Your task to perform on an android device: Search for good Thai restaurants Image 0: 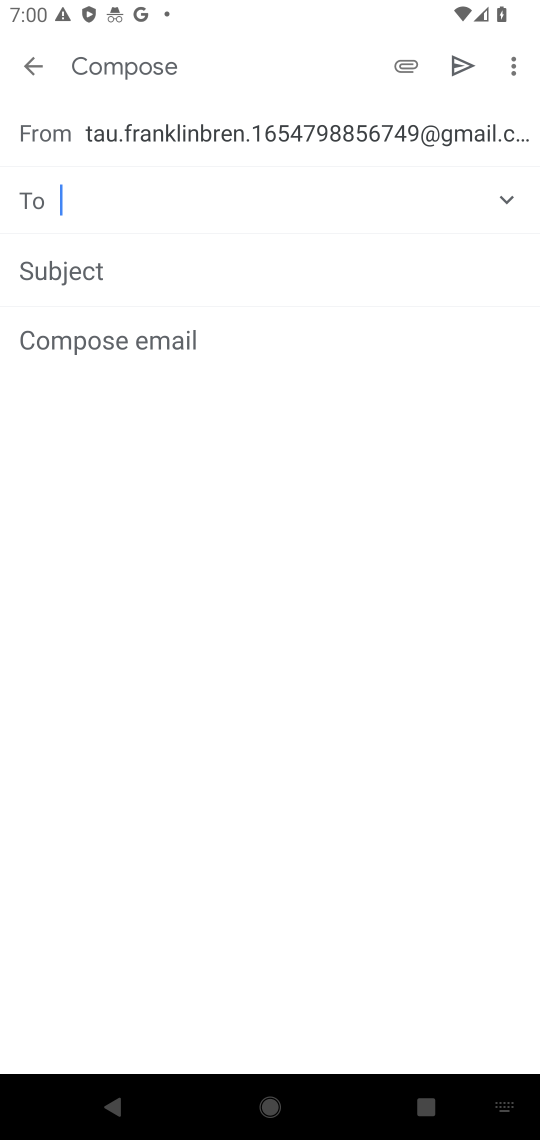
Step 0: press home button
Your task to perform on an android device: Search for good Thai restaurants Image 1: 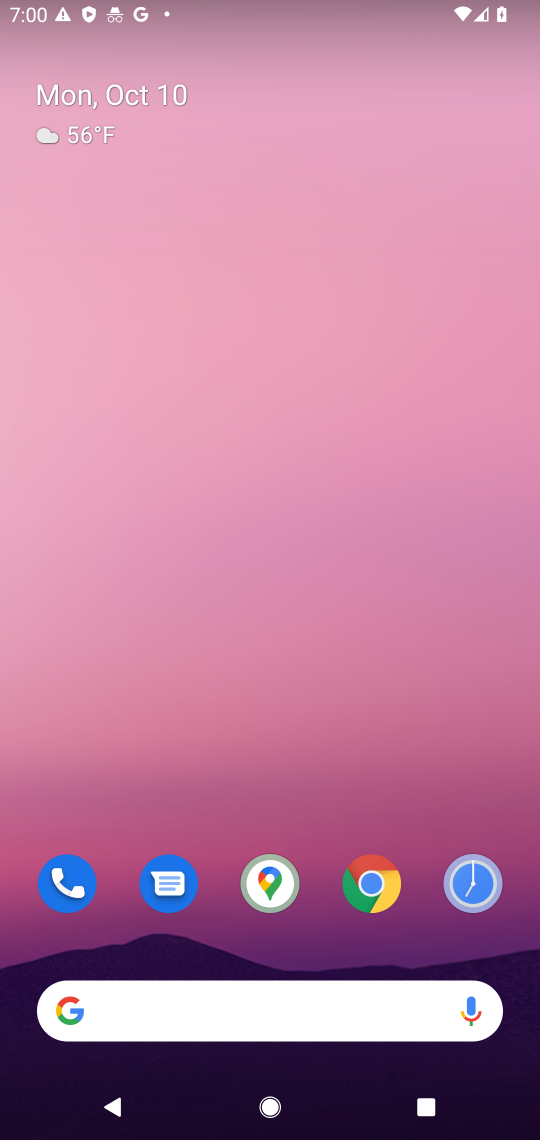
Step 1: drag from (289, 921) to (242, 561)
Your task to perform on an android device: Search for good Thai restaurants Image 2: 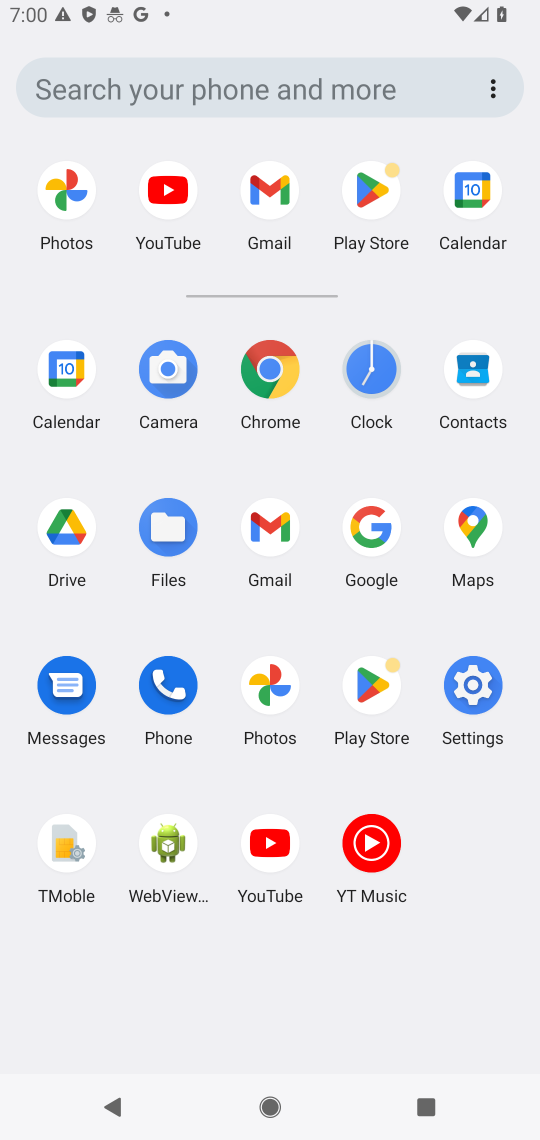
Step 2: click (400, 558)
Your task to perform on an android device: Search for good Thai restaurants Image 3: 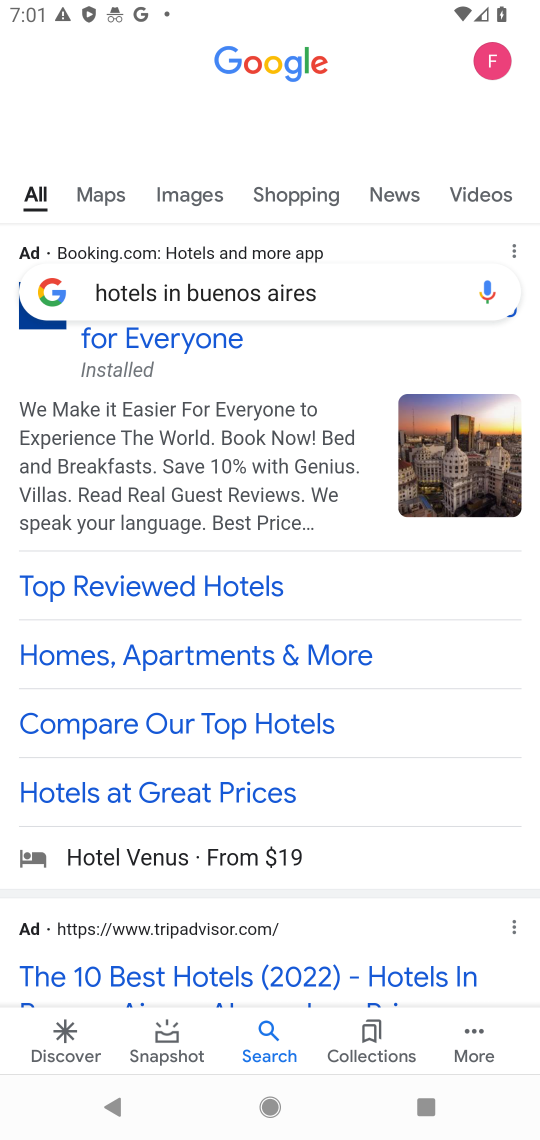
Step 3: click (385, 299)
Your task to perform on an android device: Search for good Thai restaurants Image 4: 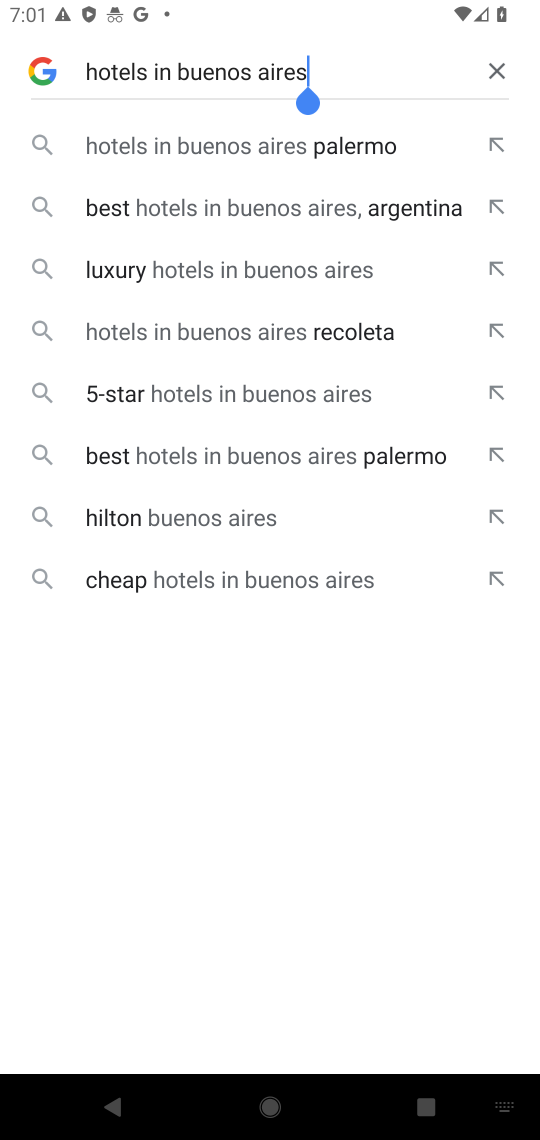
Step 4: click (503, 74)
Your task to perform on an android device: Search for good Thai restaurants Image 5: 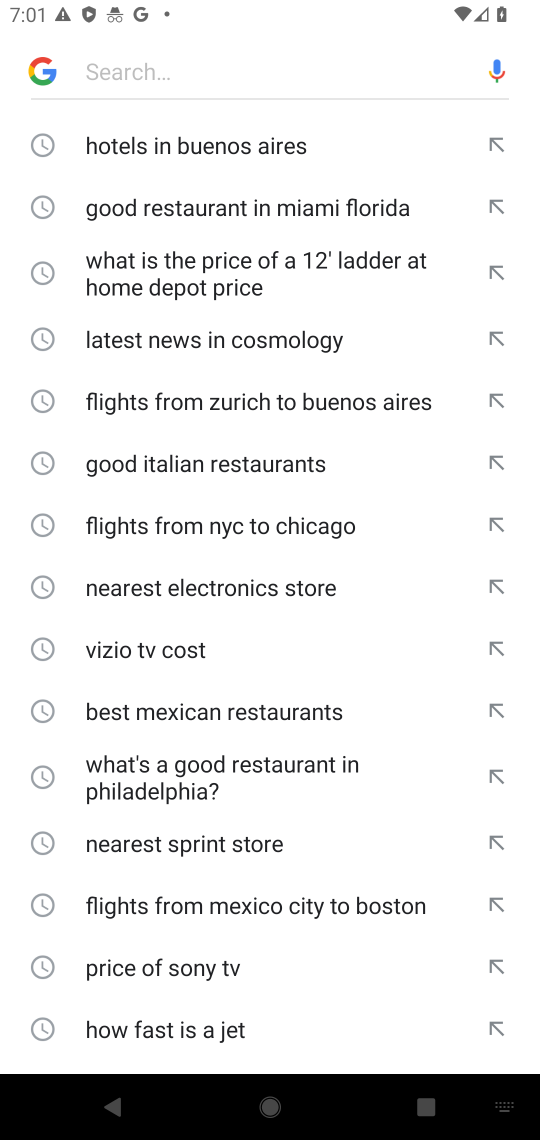
Step 5: type "good Thai restaurants"
Your task to perform on an android device: Search for good Thai restaurants Image 6: 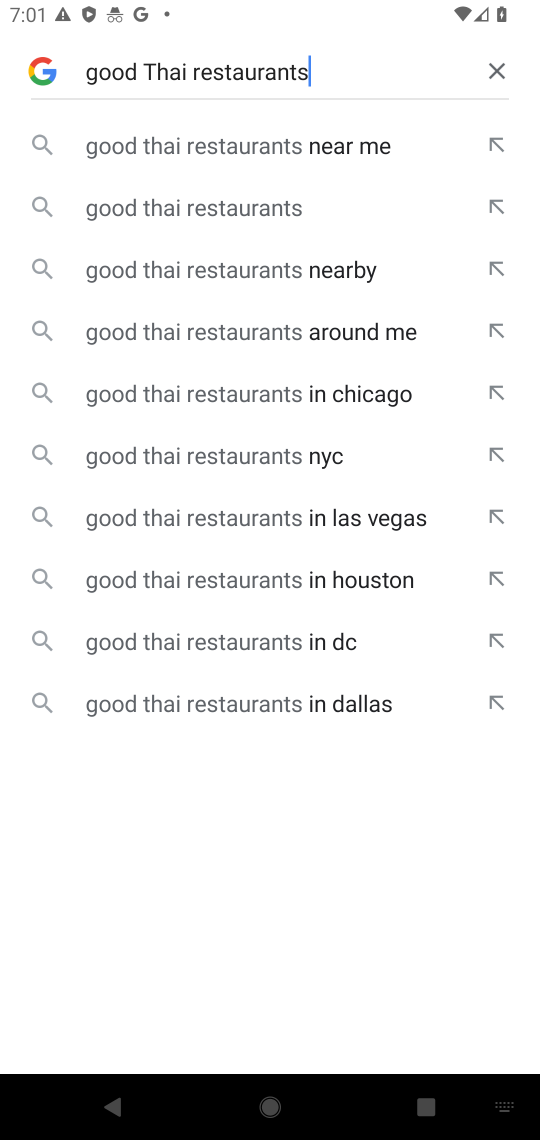
Step 6: click (338, 209)
Your task to perform on an android device: Search for good Thai restaurants Image 7: 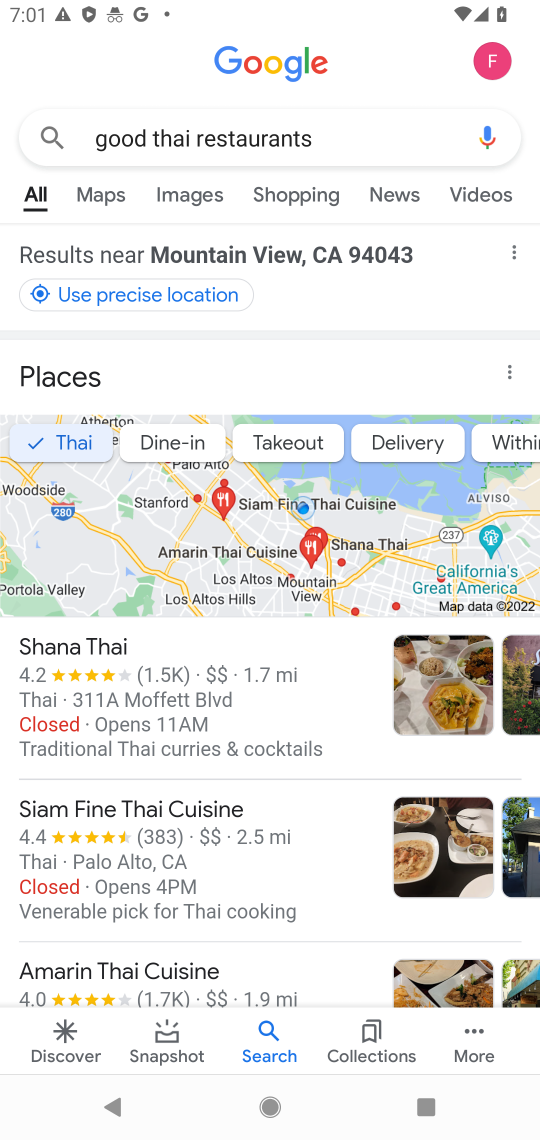
Step 7: task complete